Your task to perform on an android device: Go to Android settings Image 0: 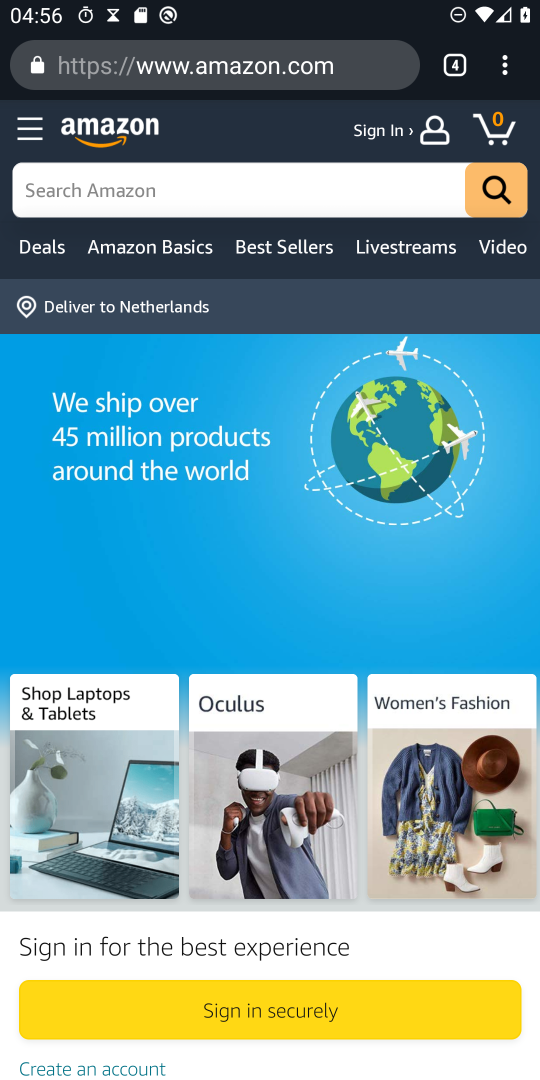
Step 0: click (509, 62)
Your task to perform on an android device: Go to Android settings Image 1: 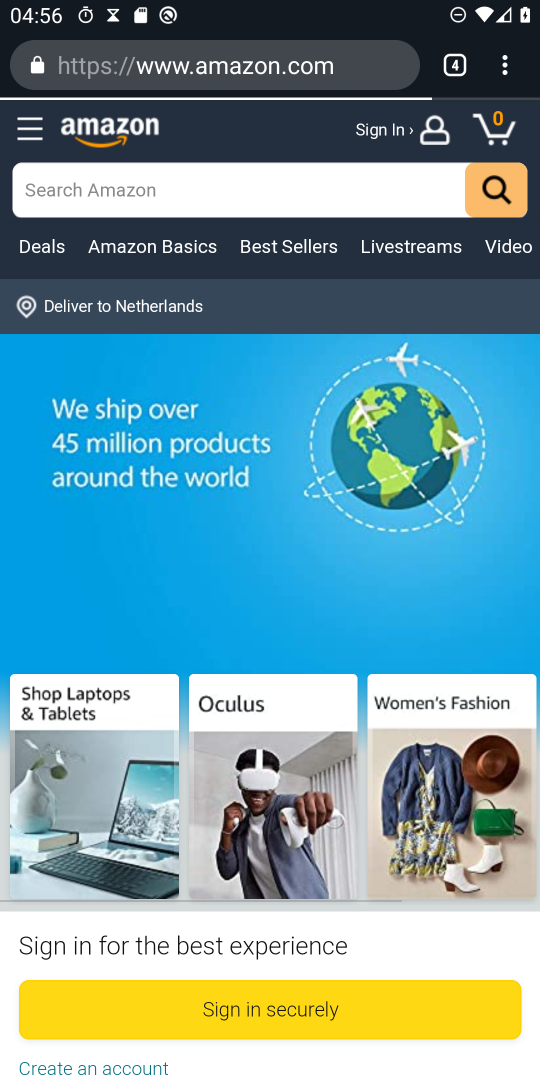
Step 1: click (517, 28)
Your task to perform on an android device: Go to Android settings Image 2: 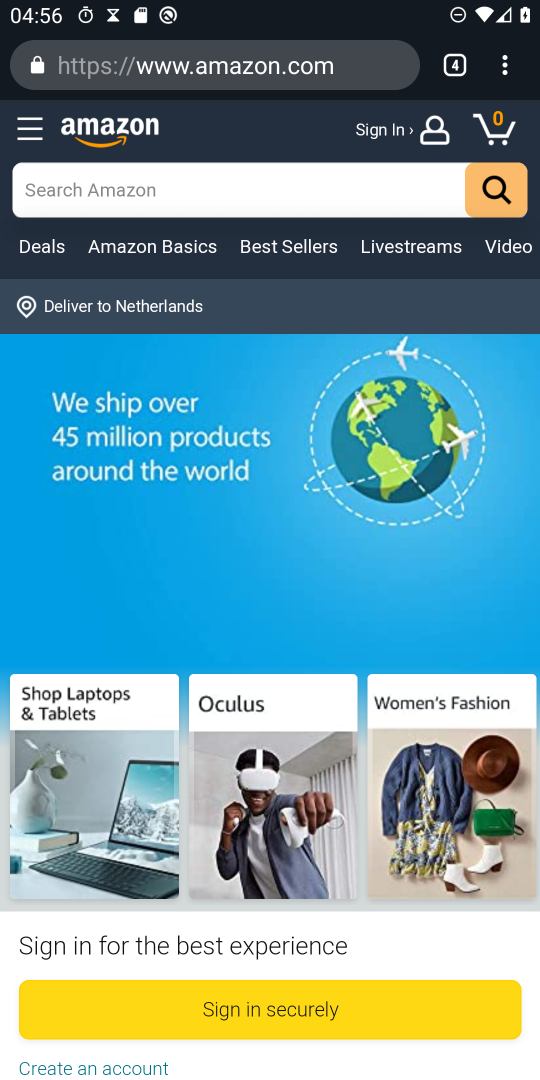
Step 2: drag from (510, 69) to (497, 232)
Your task to perform on an android device: Go to Android settings Image 3: 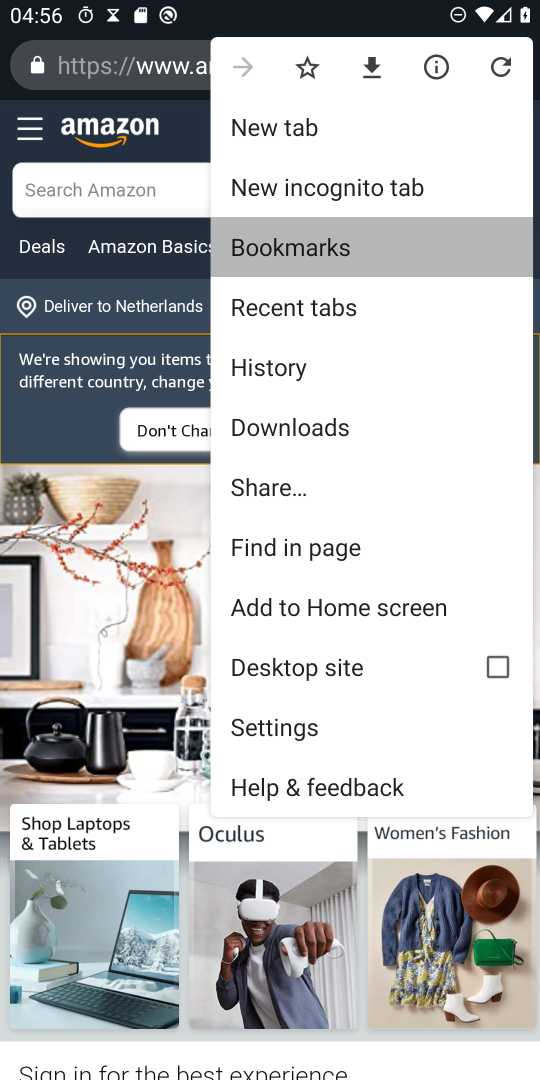
Step 3: press home button
Your task to perform on an android device: Go to Android settings Image 4: 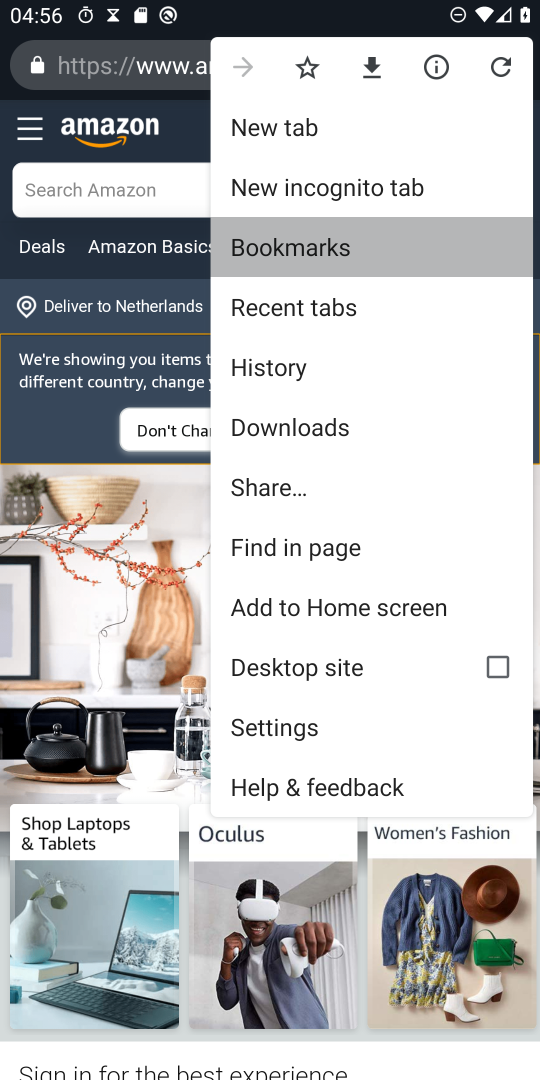
Step 4: press home button
Your task to perform on an android device: Go to Android settings Image 5: 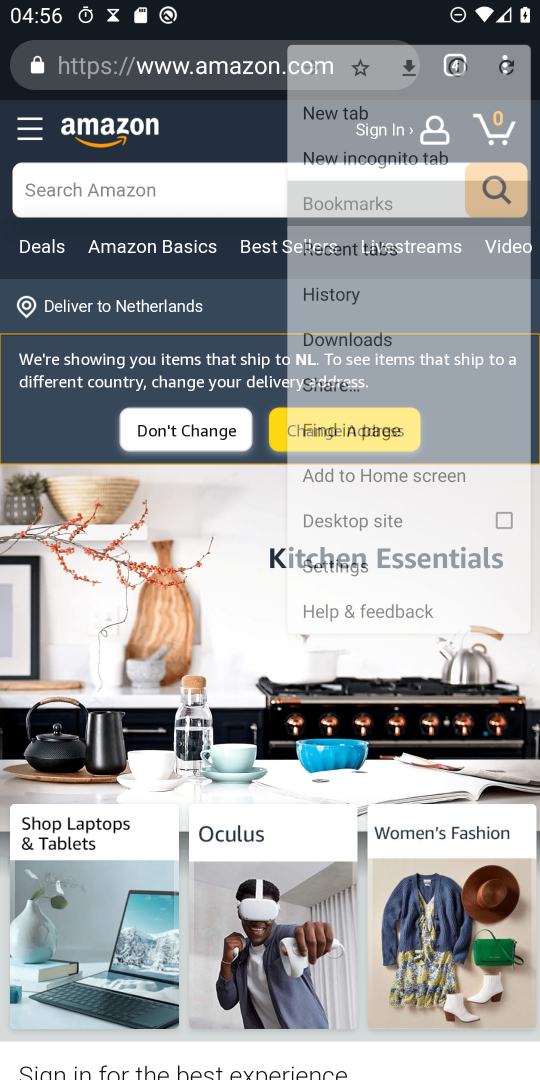
Step 5: click (517, 424)
Your task to perform on an android device: Go to Android settings Image 6: 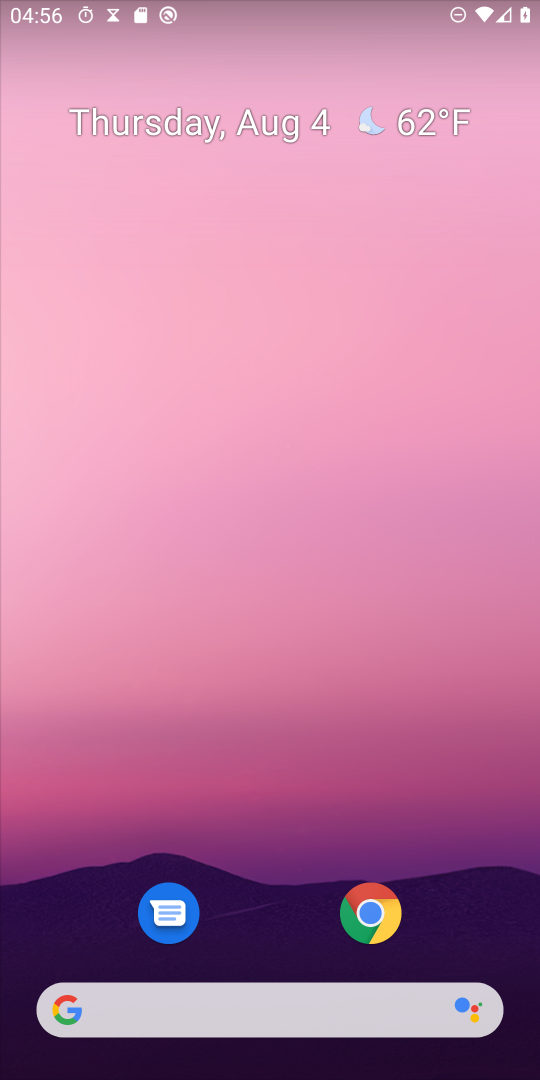
Step 6: drag from (400, 1001) to (369, 8)
Your task to perform on an android device: Go to Android settings Image 7: 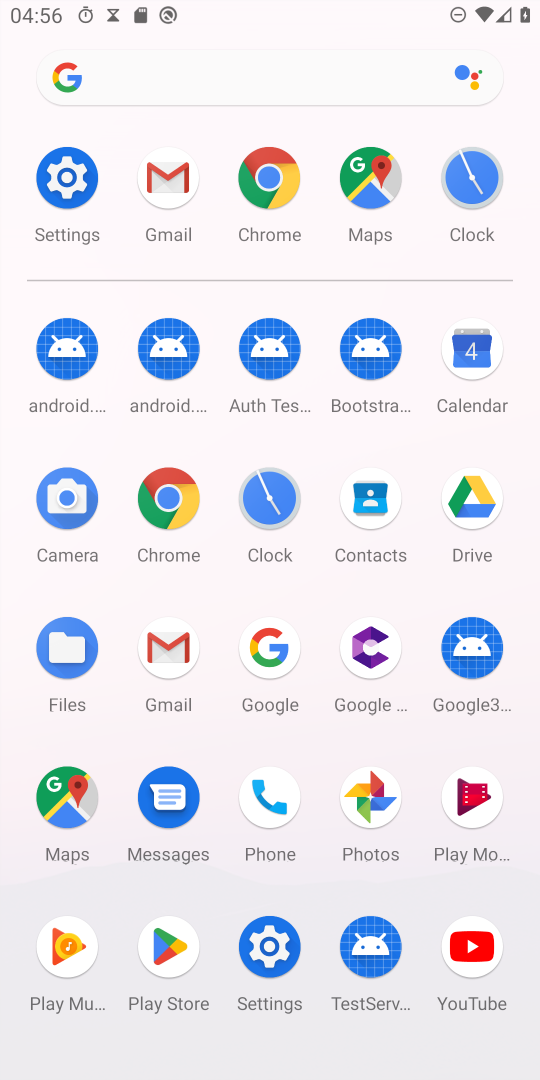
Step 7: click (79, 183)
Your task to perform on an android device: Go to Android settings Image 8: 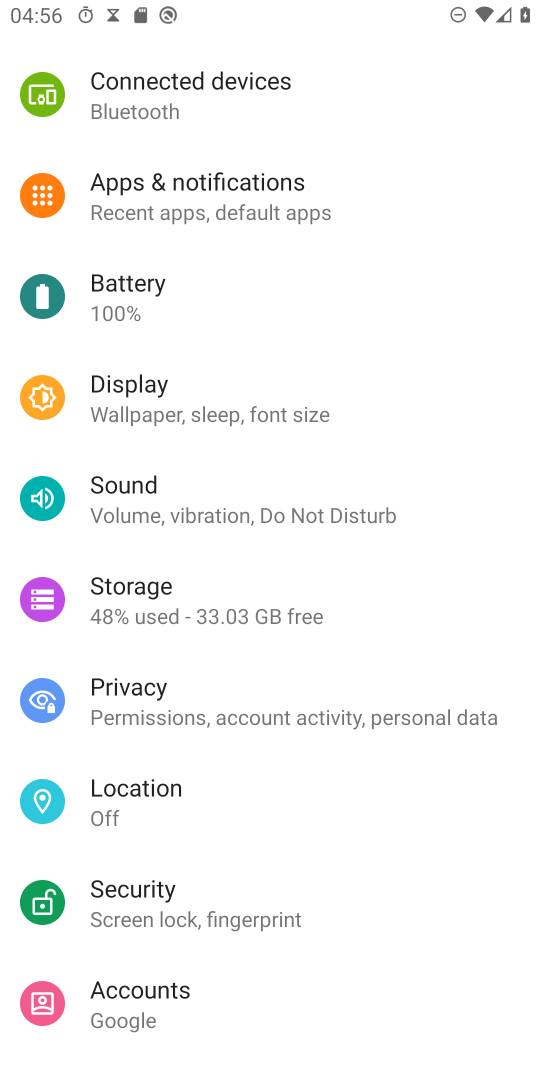
Step 8: drag from (347, 892) to (415, 11)
Your task to perform on an android device: Go to Android settings Image 9: 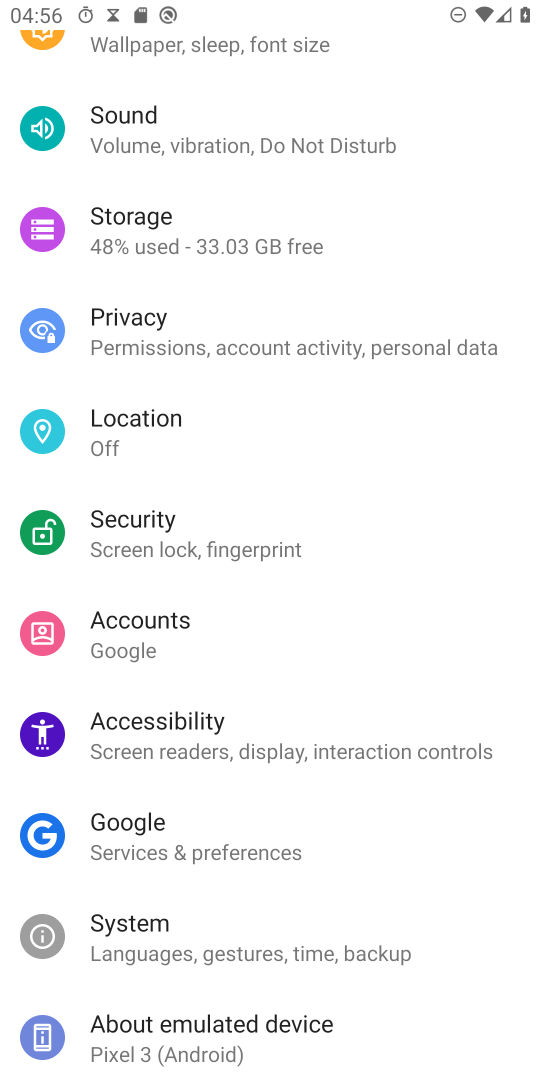
Step 9: click (240, 1025)
Your task to perform on an android device: Go to Android settings Image 10: 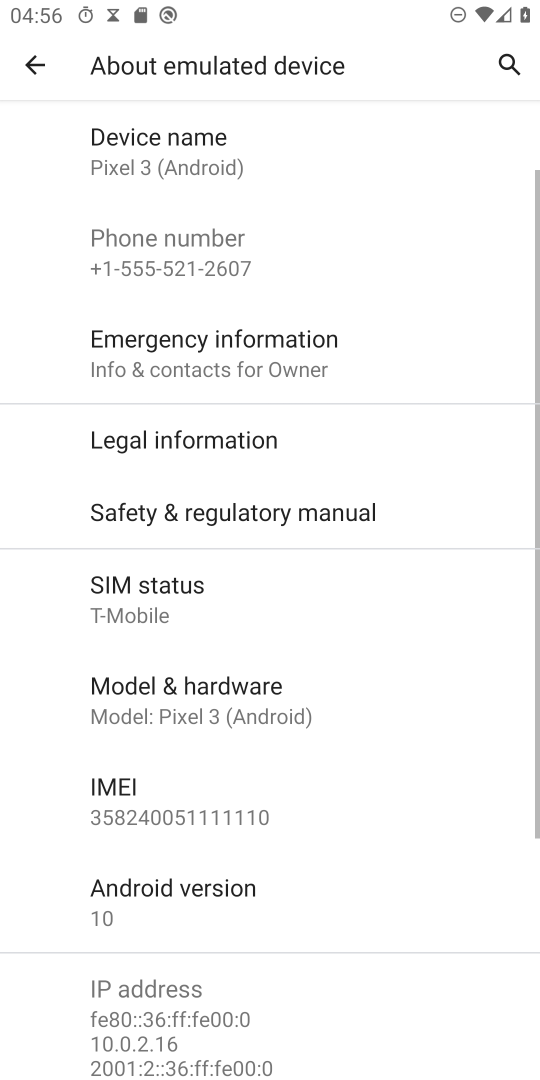
Step 10: click (173, 911)
Your task to perform on an android device: Go to Android settings Image 11: 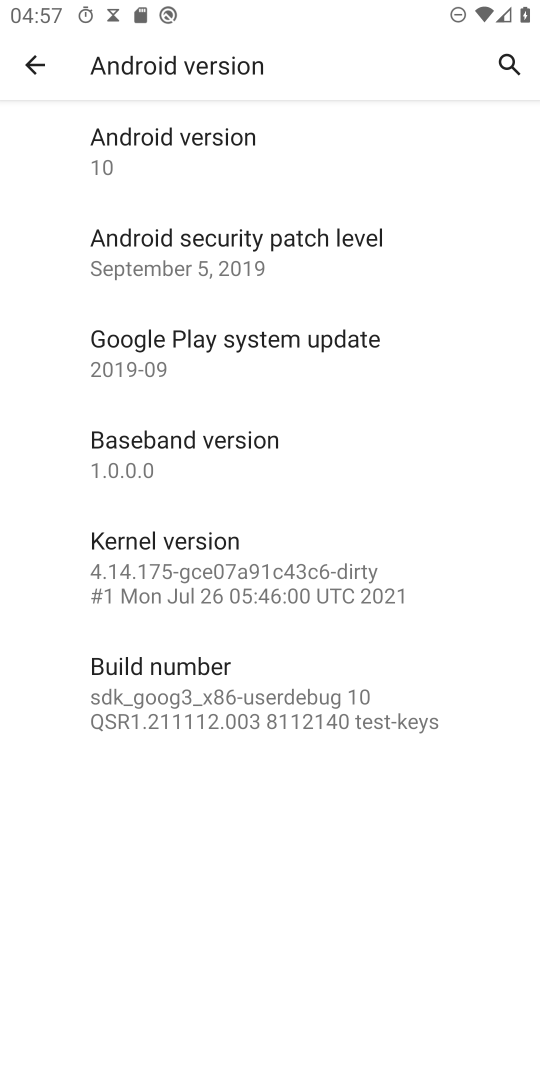
Step 11: task complete